Your task to perform on an android device: Turn off the flashlight Image 0: 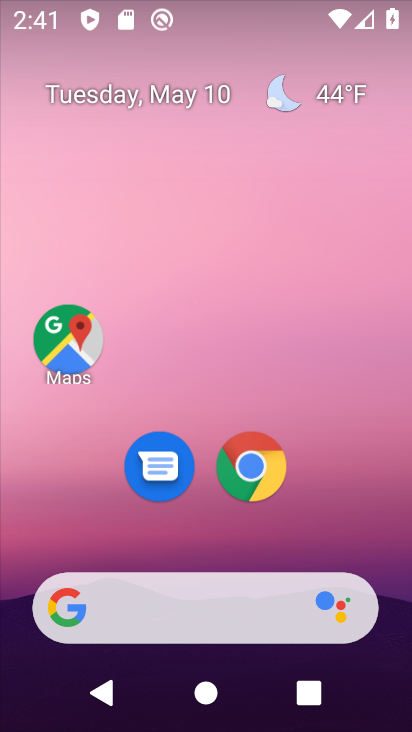
Step 0: drag from (302, 515) to (219, 14)
Your task to perform on an android device: Turn off the flashlight Image 1: 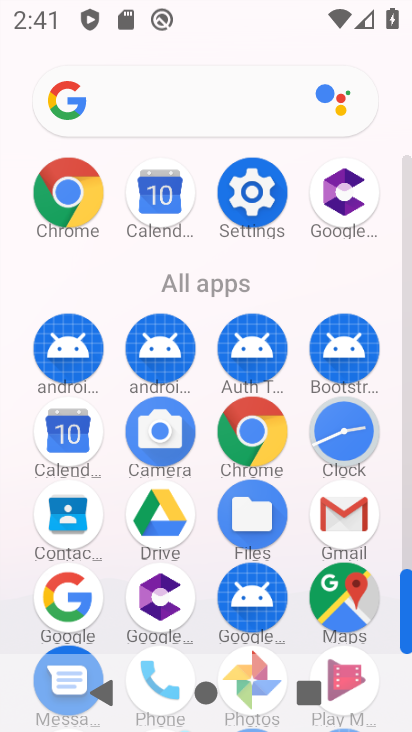
Step 1: click (253, 195)
Your task to perform on an android device: Turn off the flashlight Image 2: 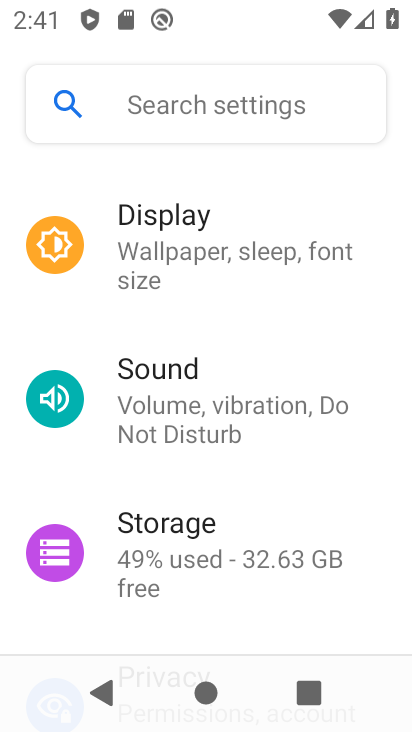
Step 2: drag from (242, 273) to (277, 385)
Your task to perform on an android device: Turn off the flashlight Image 3: 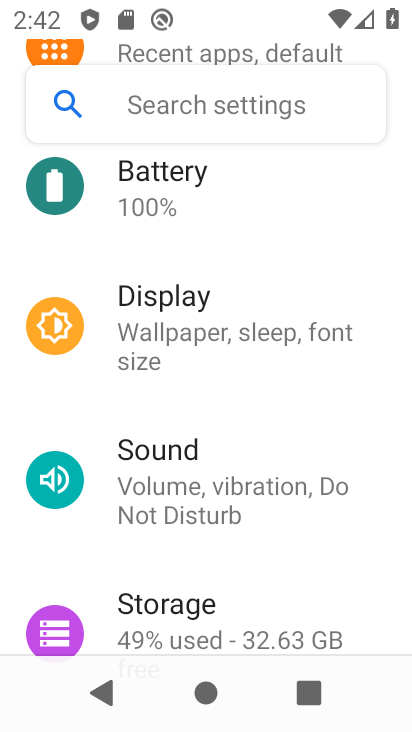
Step 3: drag from (200, 249) to (262, 391)
Your task to perform on an android device: Turn off the flashlight Image 4: 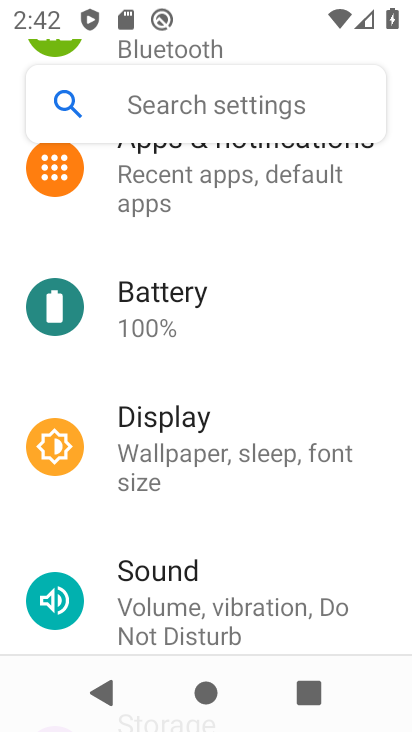
Step 4: drag from (197, 247) to (254, 383)
Your task to perform on an android device: Turn off the flashlight Image 5: 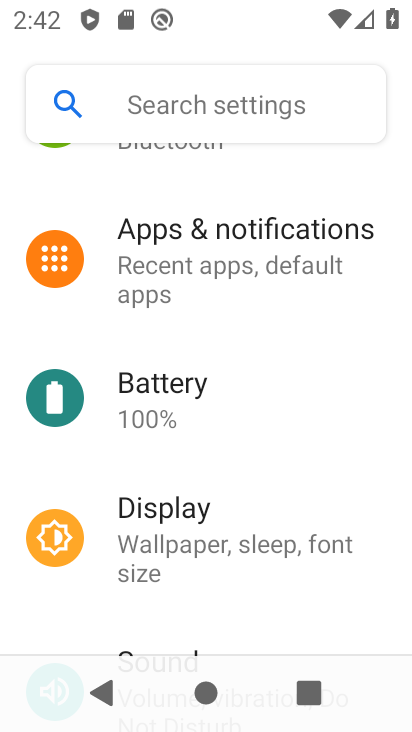
Step 5: drag from (225, 444) to (214, 295)
Your task to perform on an android device: Turn off the flashlight Image 6: 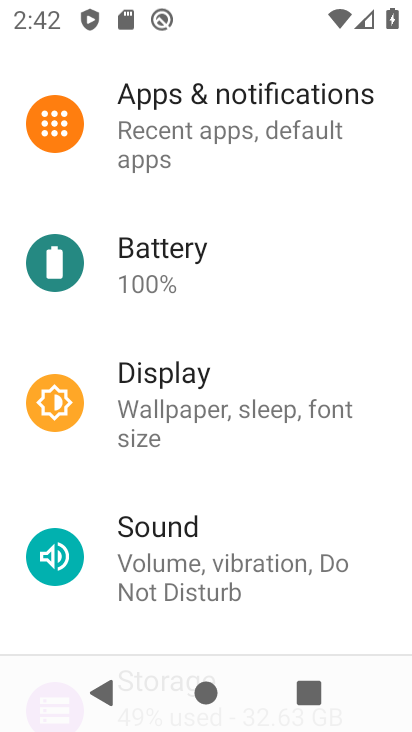
Step 6: drag from (172, 457) to (216, 323)
Your task to perform on an android device: Turn off the flashlight Image 7: 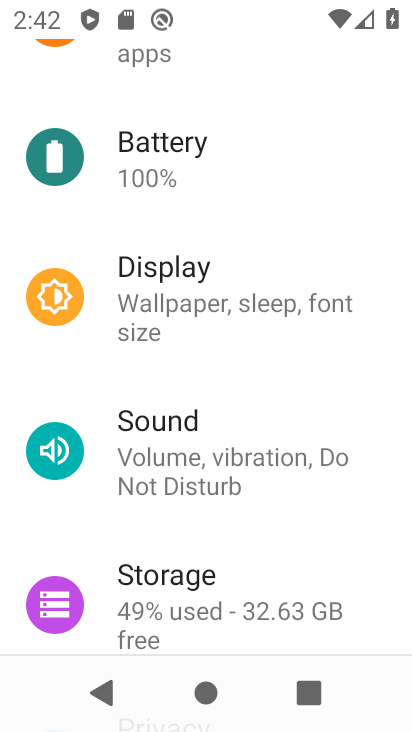
Step 7: drag from (152, 519) to (226, 389)
Your task to perform on an android device: Turn off the flashlight Image 8: 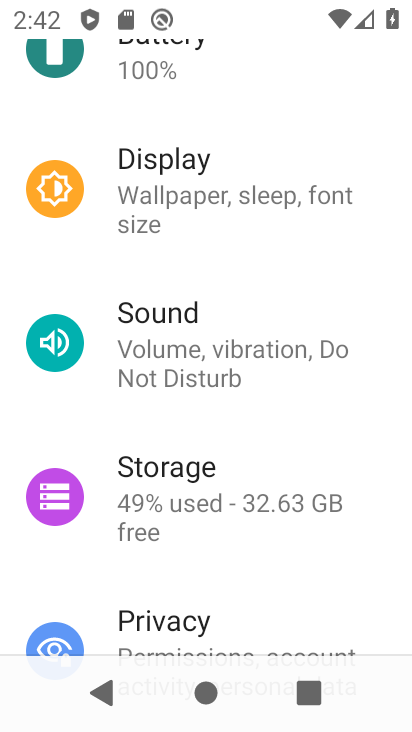
Step 8: click (261, 213)
Your task to perform on an android device: Turn off the flashlight Image 9: 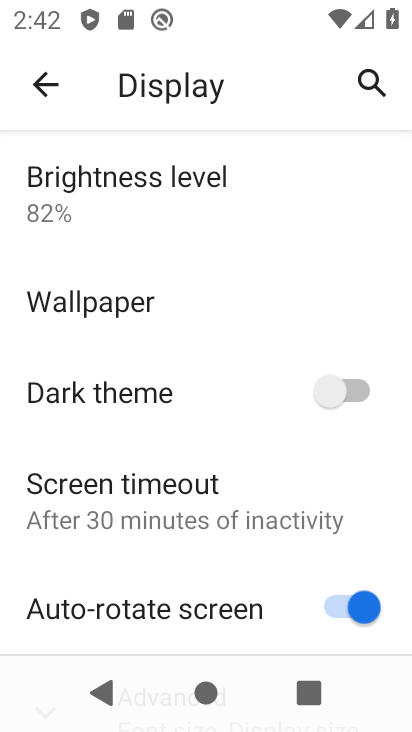
Step 9: drag from (161, 449) to (230, 275)
Your task to perform on an android device: Turn off the flashlight Image 10: 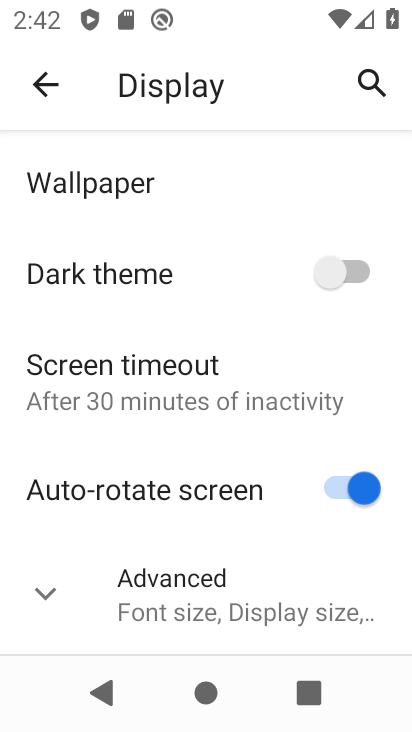
Step 10: drag from (126, 426) to (145, 280)
Your task to perform on an android device: Turn off the flashlight Image 11: 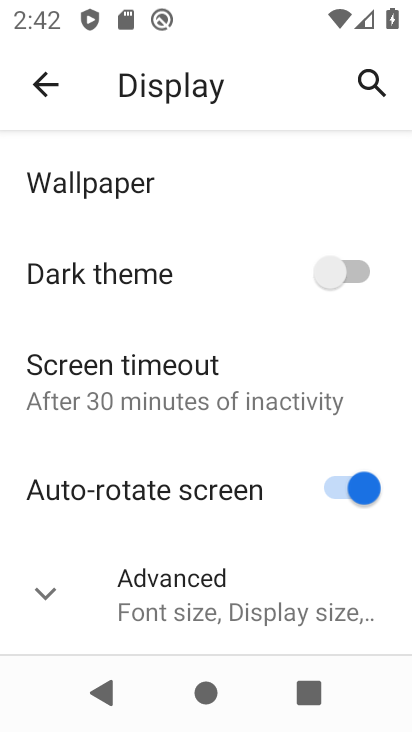
Step 11: click (128, 372)
Your task to perform on an android device: Turn off the flashlight Image 12: 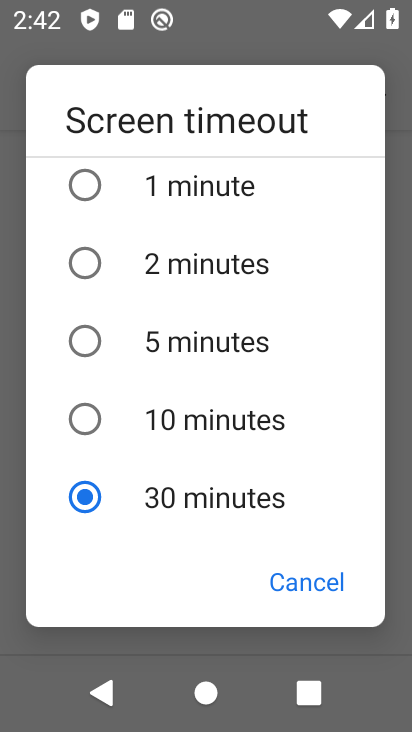
Step 12: click (310, 572)
Your task to perform on an android device: Turn off the flashlight Image 13: 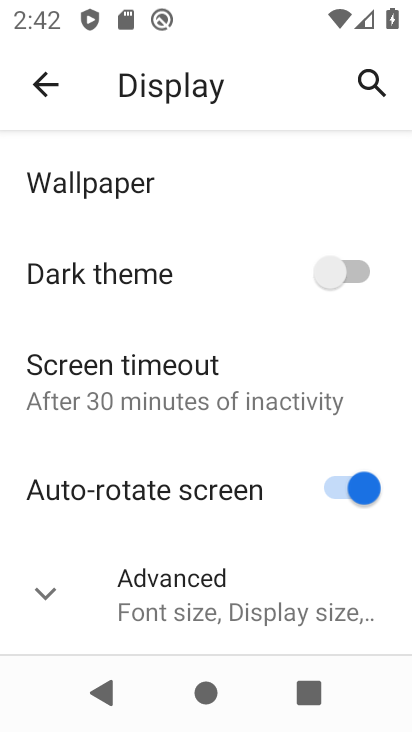
Step 13: click (201, 566)
Your task to perform on an android device: Turn off the flashlight Image 14: 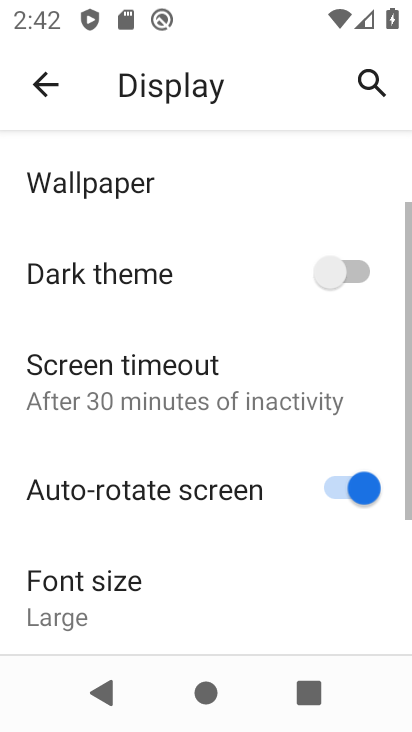
Step 14: drag from (193, 561) to (230, 330)
Your task to perform on an android device: Turn off the flashlight Image 15: 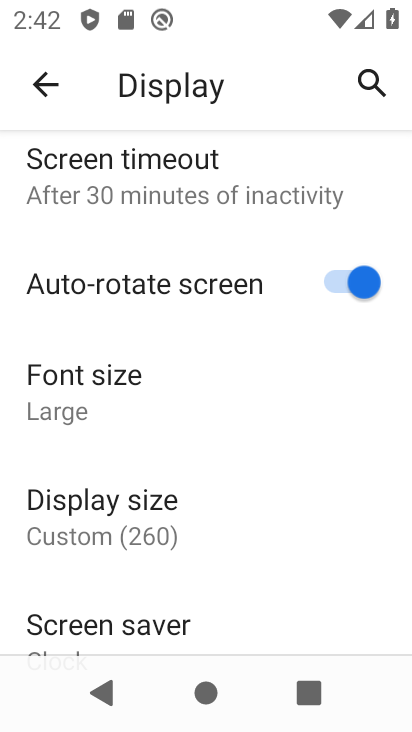
Step 15: drag from (181, 486) to (228, 313)
Your task to perform on an android device: Turn off the flashlight Image 16: 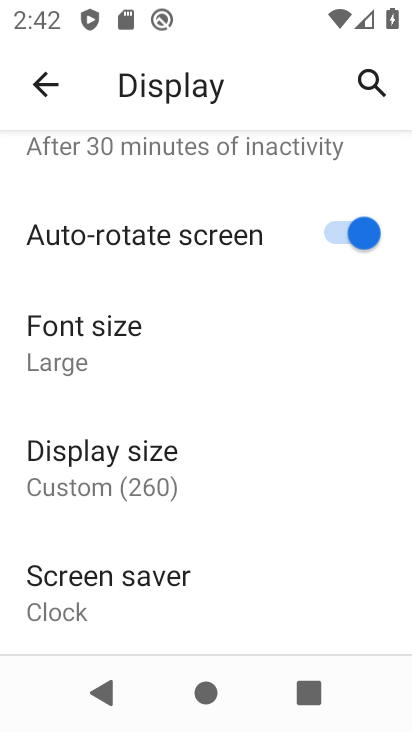
Step 16: press back button
Your task to perform on an android device: Turn off the flashlight Image 17: 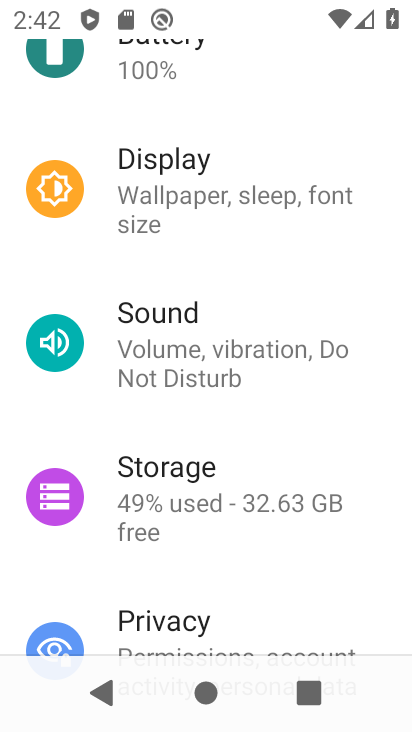
Step 17: drag from (245, 542) to (264, 298)
Your task to perform on an android device: Turn off the flashlight Image 18: 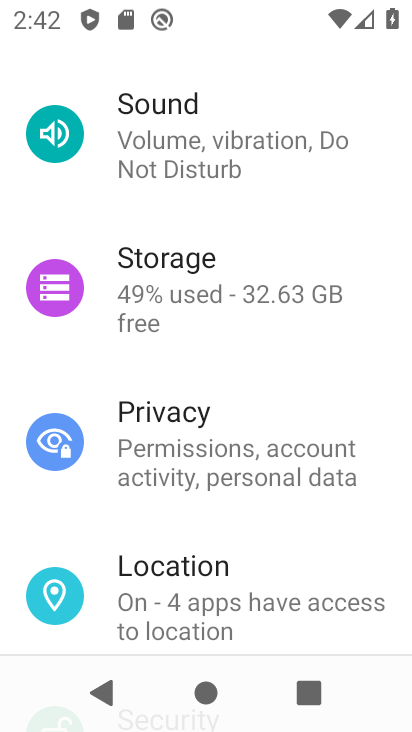
Step 18: drag from (211, 480) to (258, 382)
Your task to perform on an android device: Turn off the flashlight Image 19: 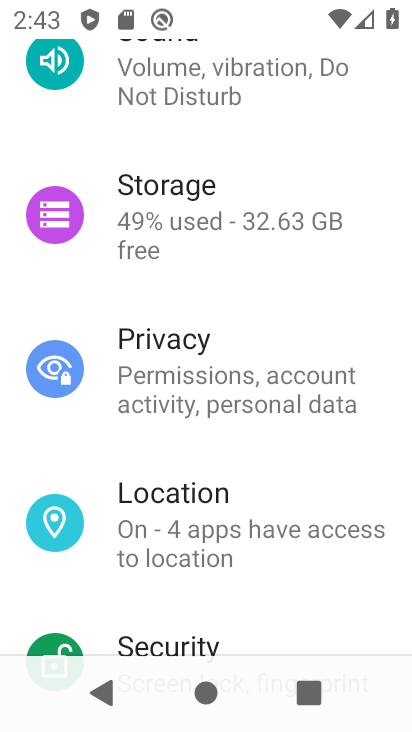
Step 19: drag from (164, 600) to (179, 390)
Your task to perform on an android device: Turn off the flashlight Image 20: 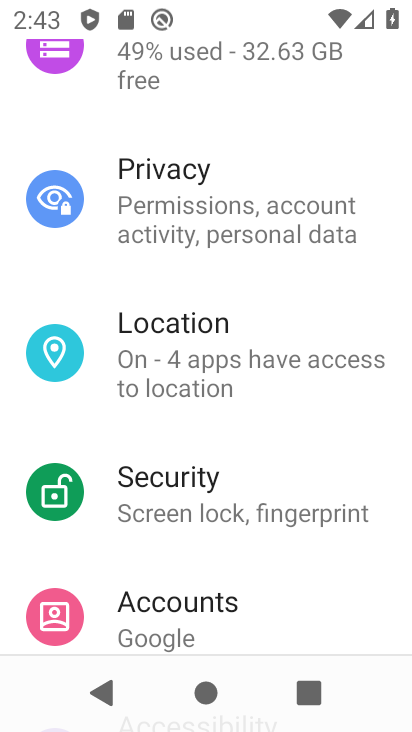
Step 20: drag from (202, 565) to (259, 383)
Your task to perform on an android device: Turn off the flashlight Image 21: 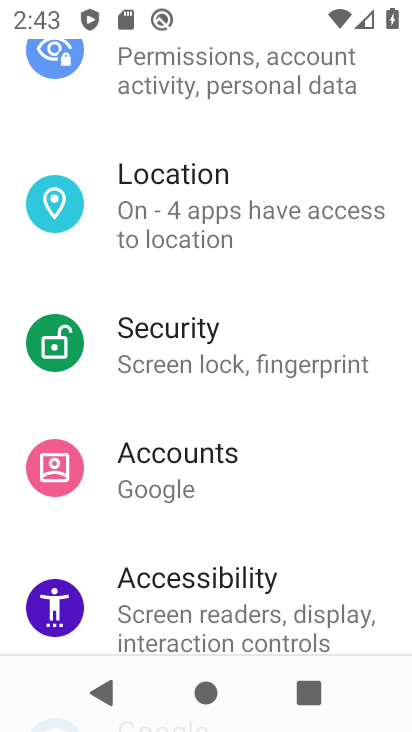
Step 21: drag from (199, 549) to (311, 332)
Your task to perform on an android device: Turn off the flashlight Image 22: 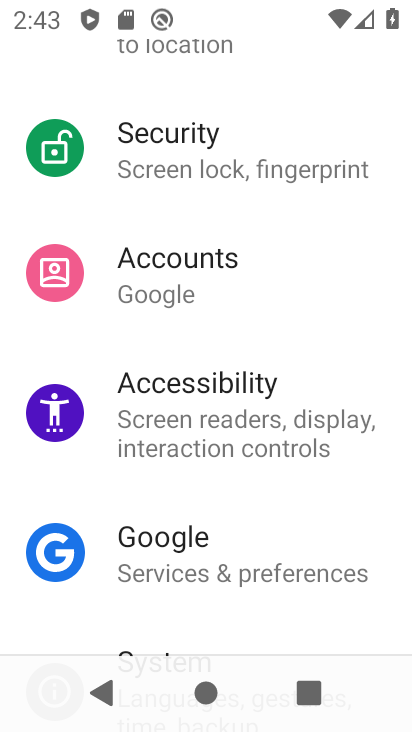
Step 22: drag from (198, 561) to (269, 405)
Your task to perform on an android device: Turn off the flashlight Image 23: 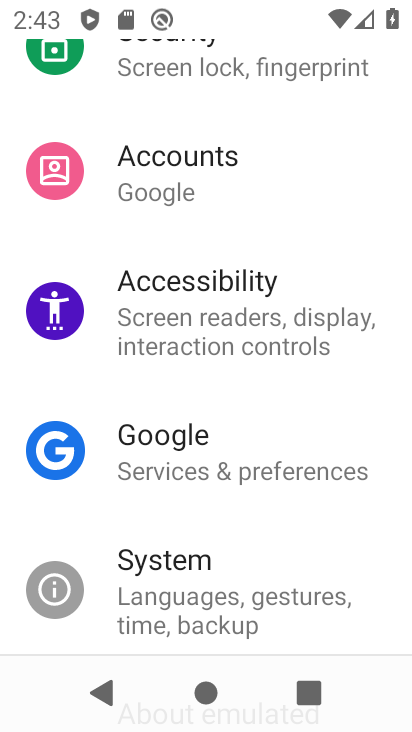
Step 23: click (212, 295)
Your task to perform on an android device: Turn off the flashlight Image 24: 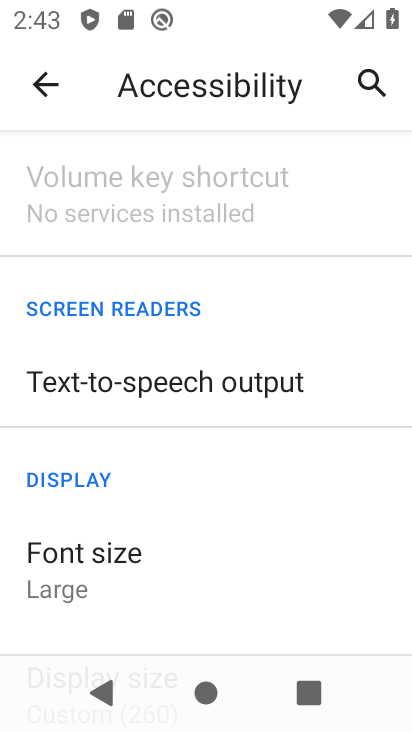
Step 24: task complete